Your task to perform on an android device: open chrome and create a bookmark for the current page Image 0: 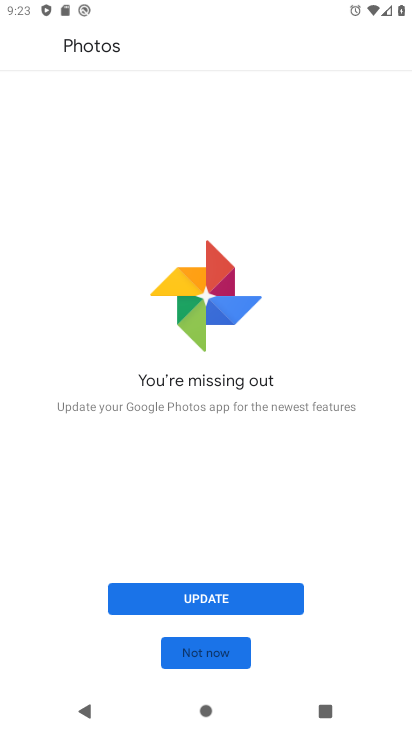
Step 0: press home button
Your task to perform on an android device: open chrome and create a bookmark for the current page Image 1: 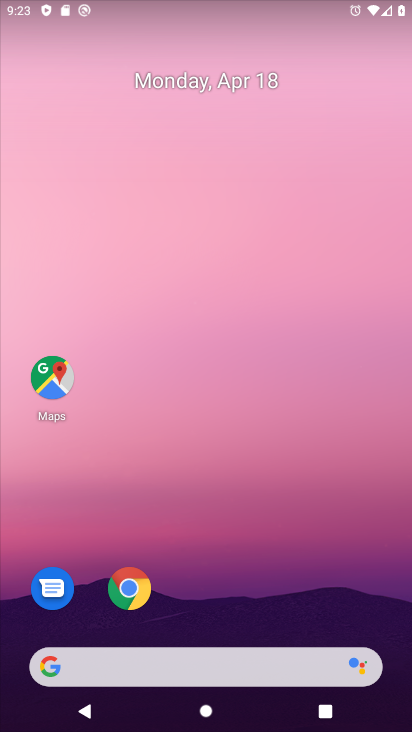
Step 1: drag from (279, 595) to (294, 178)
Your task to perform on an android device: open chrome and create a bookmark for the current page Image 2: 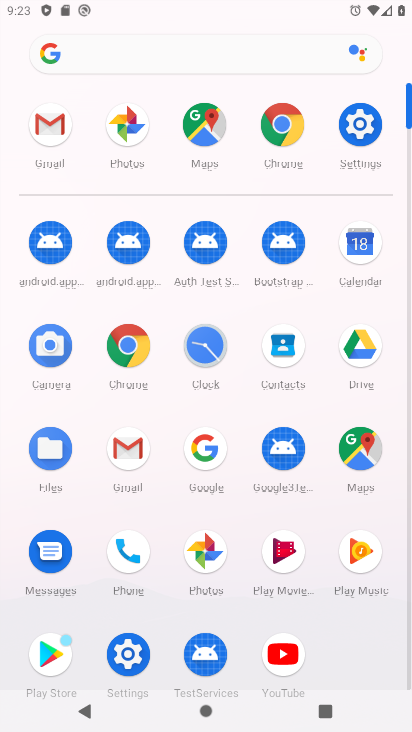
Step 2: click (132, 342)
Your task to perform on an android device: open chrome and create a bookmark for the current page Image 3: 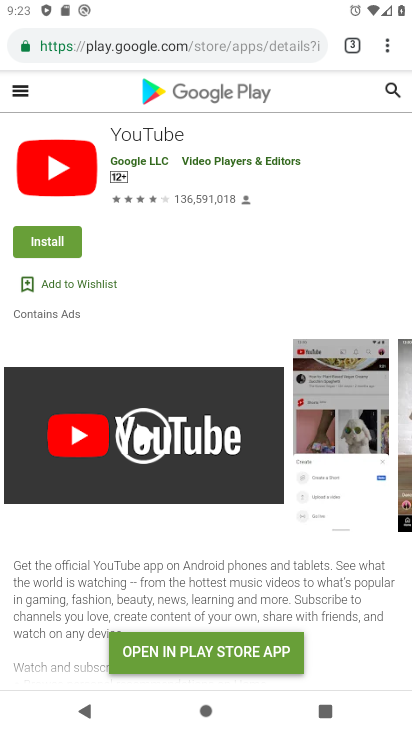
Step 3: click (372, 36)
Your task to perform on an android device: open chrome and create a bookmark for the current page Image 4: 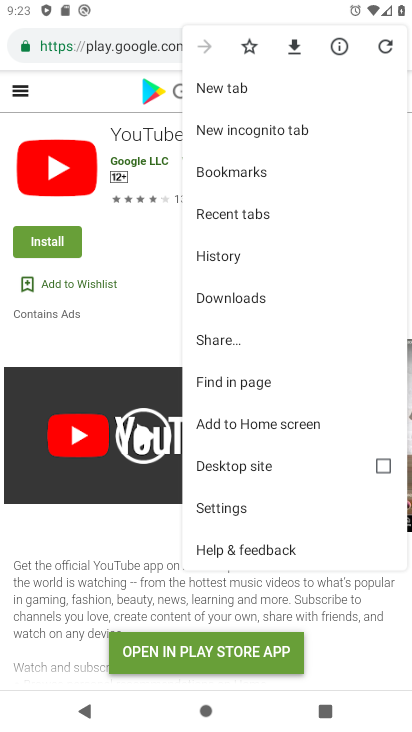
Step 4: click (246, 43)
Your task to perform on an android device: open chrome and create a bookmark for the current page Image 5: 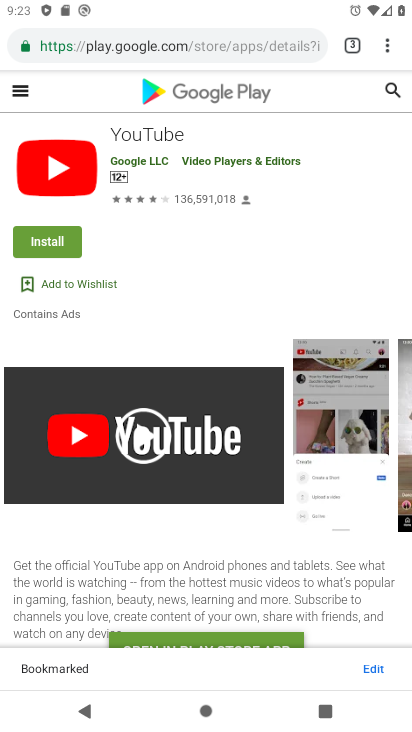
Step 5: click (368, 667)
Your task to perform on an android device: open chrome and create a bookmark for the current page Image 6: 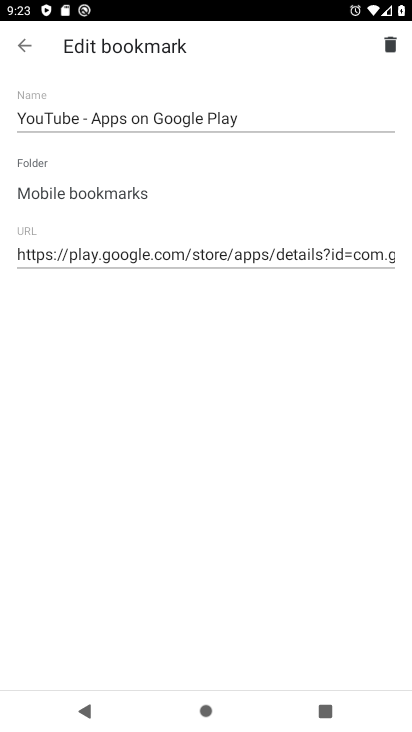
Step 6: click (12, 48)
Your task to perform on an android device: open chrome and create a bookmark for the current page Image 7: 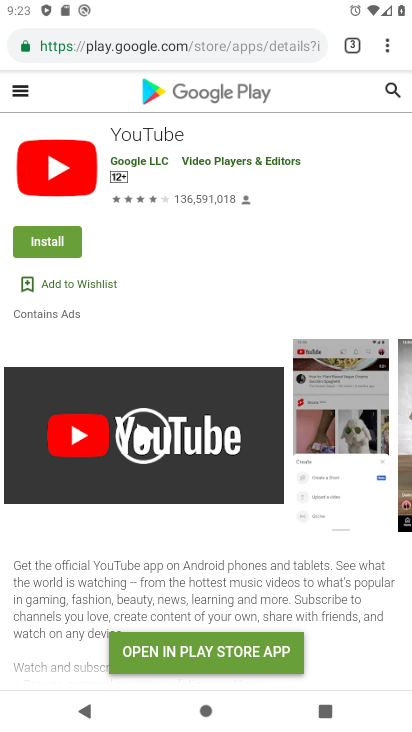
Step 7: task complete